Your task to perform on an android device: turn smart compose on in the gmail app Image 0: 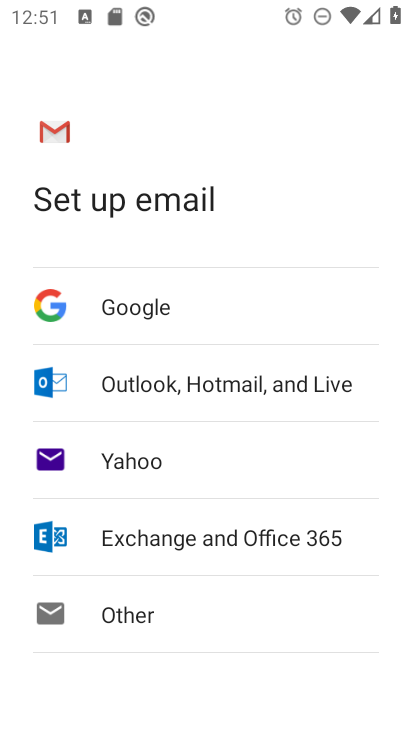
Step 0: press home button
Your task to perform on an android device: turn smart compose on in the gmail app Image 1: 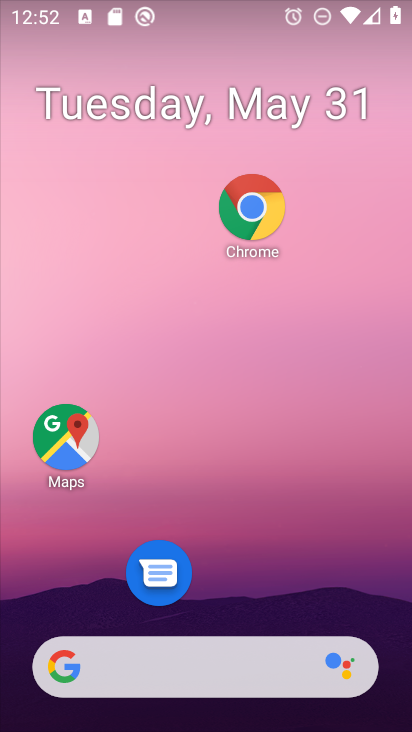
Step 1: drag from (254, 624) to (301, 176)
Your task to perform on an android device: turn smart compose on in the gmail app Image 2: 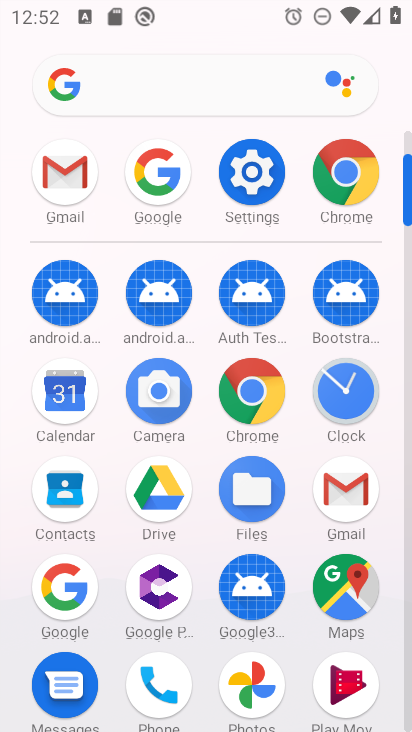
Step 2: click (345, 508)
Your task to perform on an android device: turn smart compose on in the gmail app Image 3: 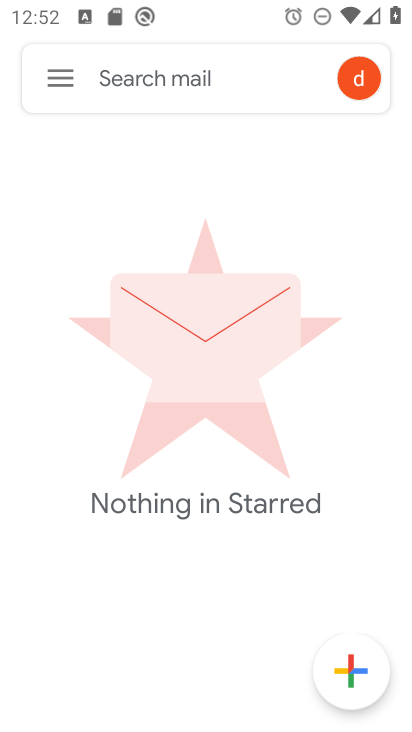
Step 3: click (72, 84)
Your task to perform on an android device: turn smart compose on in the gmail app Image 4: 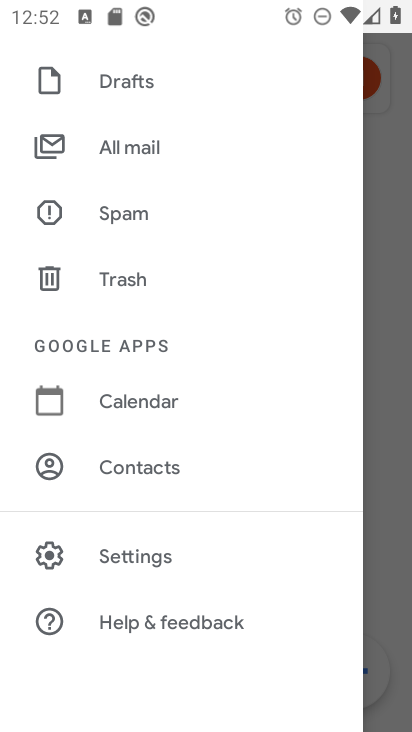
Step 4: click (181, 545)
Your task to perform on an android device: turn smart compose on in the gmail app Image 5: 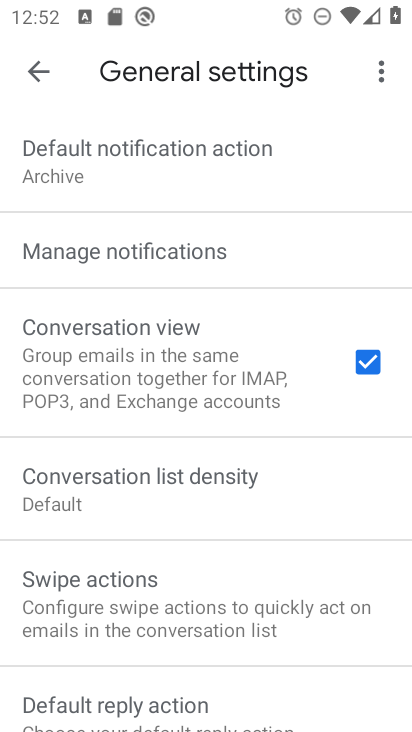
Step 5: drag from (180, 536) to (186, 411)
Your task to perform on an android device: turn smart compose on in the gmail app Image 6: 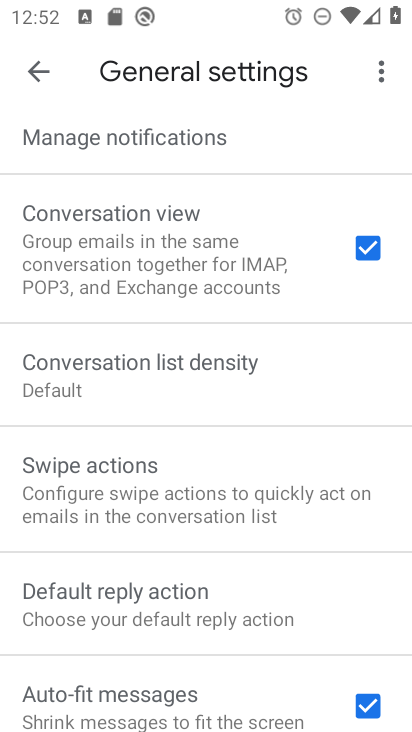
Step 6: click (43, 79)
Your task to perform on an android device: turn smart compose on in the gmail app Image 7: 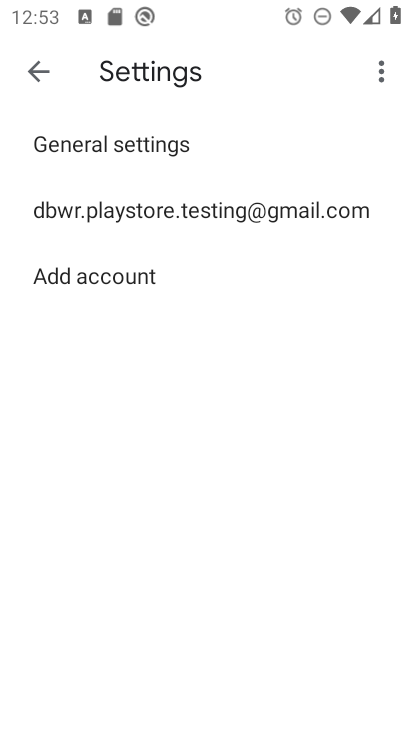
Step 7: click (142, 219)
Your task to perform on an android device: turn smart compose on in the gmail app Image 8: 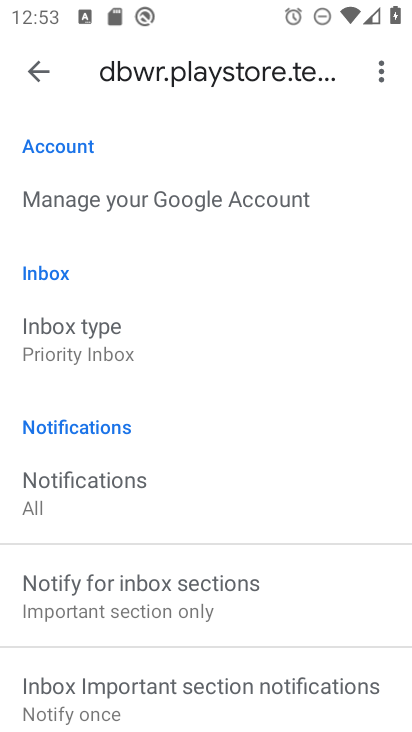
Step 8: task complete